Your task to perform on an android device: open wifi settings Image 0: 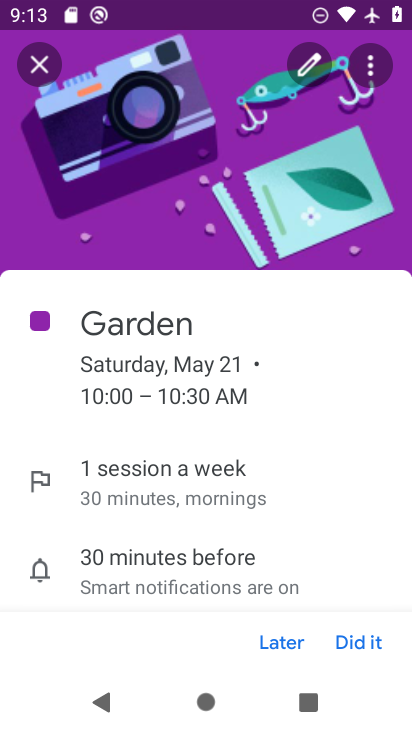
Step 0: press home button
Your task to perform on an android device: open wifi settings Image 1: 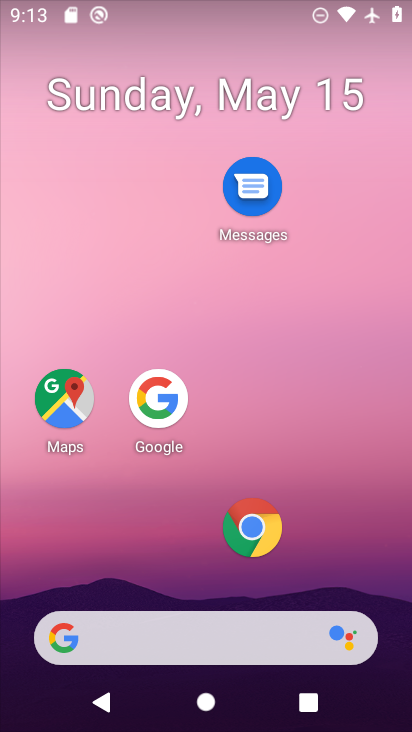
Step 1: drag from (169, 645) to (302, 80)
Your task to perform on an android device: open wifi settings Image 2: 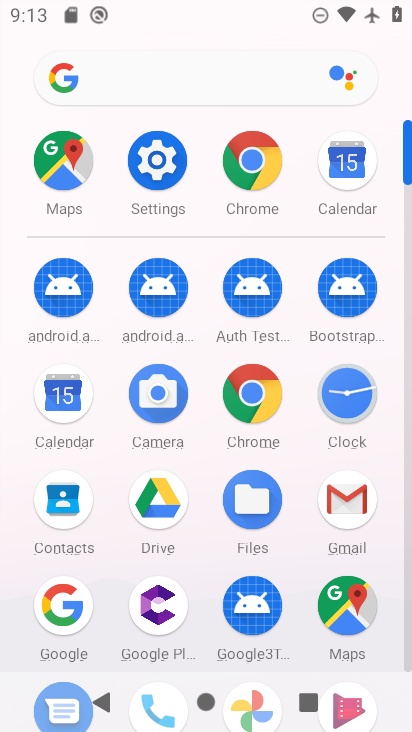
Step 2: click (161, 159)
Your task to perform on an android device: open wifi settings Image 3: 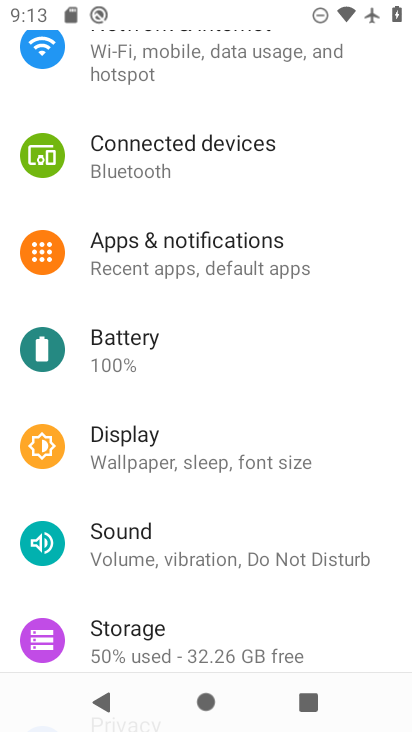
Step 3: drag from (337, 106) to (214, 570)
Your task to perform on an android device: open wifi settings Image 4: 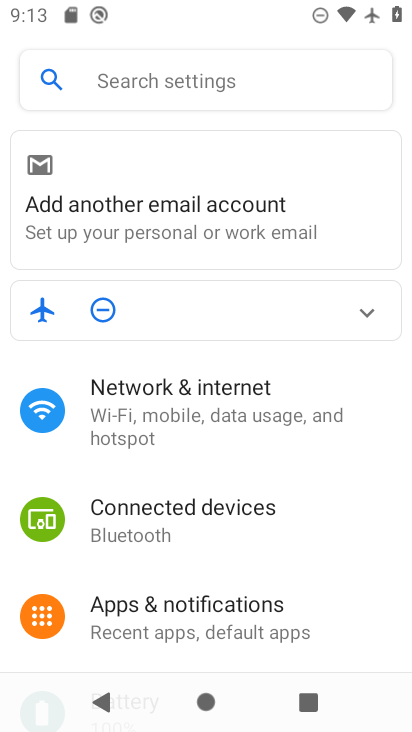
Step 4: click (216, 398)
Your task to perform on an android device: open wifi settings Image 5: 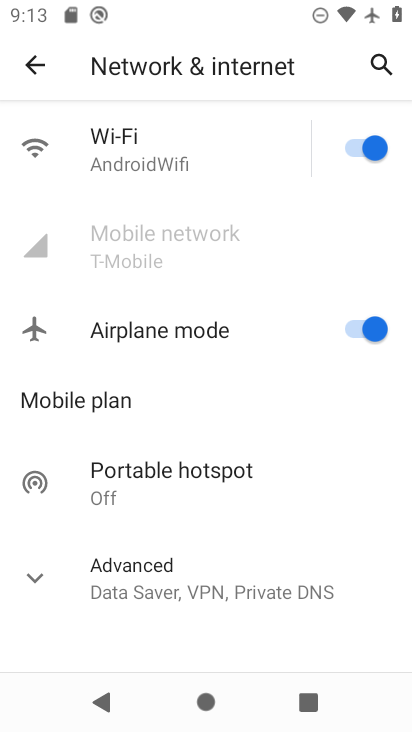
Step 5: click (139, 156)
Your task to perform on an android device: open wifi settings Image 6: 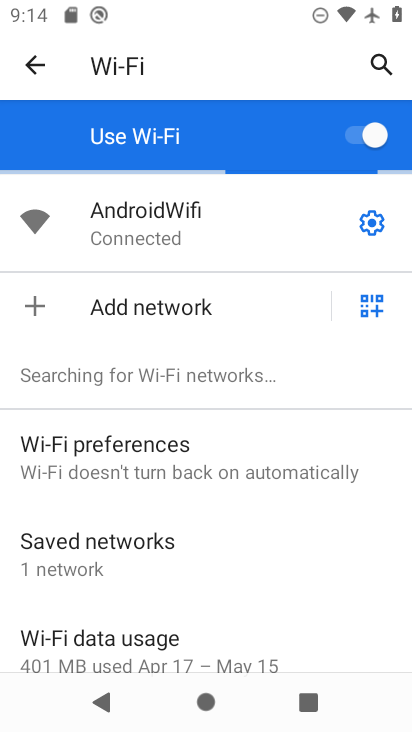
Step 6: task complete